Your task to perform on an android device: What is the news today? Image 0: 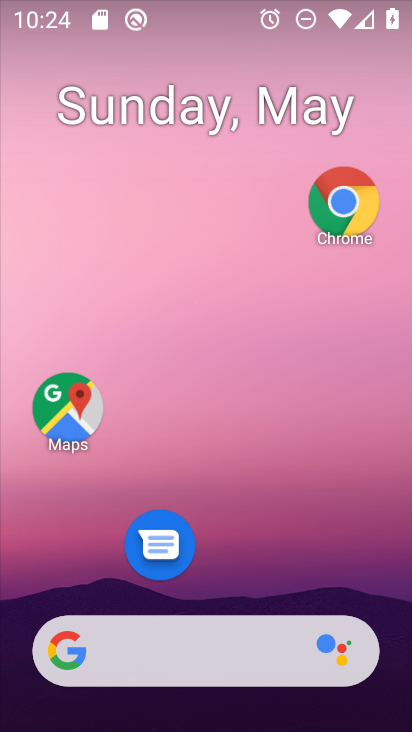
Step 0: drag from (266, 578) to (318, 0)
Your task to perform on an android device: What is the news today? Image 1: 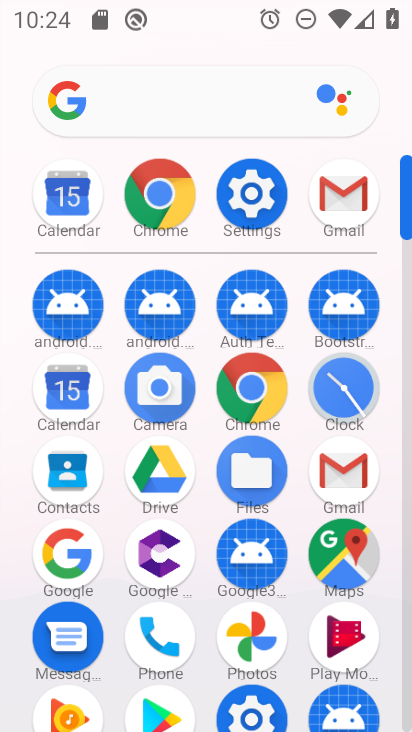
Step 1: click (146, 102)
Your task to perform on an android device: What is the news today? Image 2: 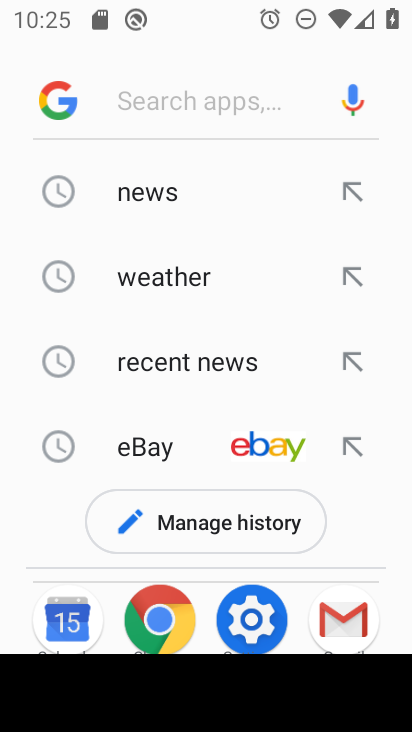
Step 2: type "what is the news today"
Your task to perform on an android device: What is the news today? Image 3: 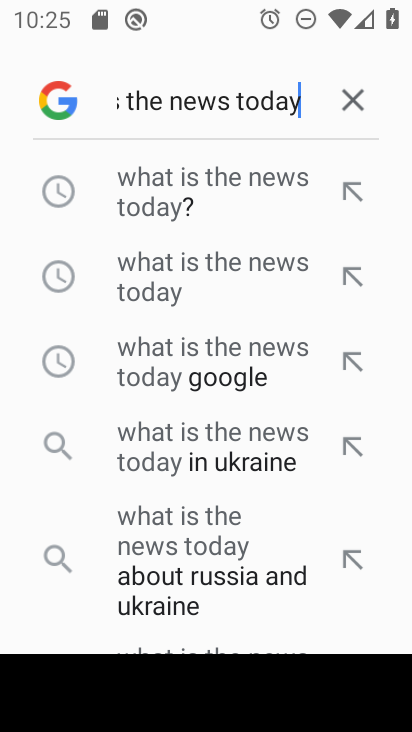
Step 3: click (212, 189)
Your task to perform on an android device: What is the news today? Image 4: 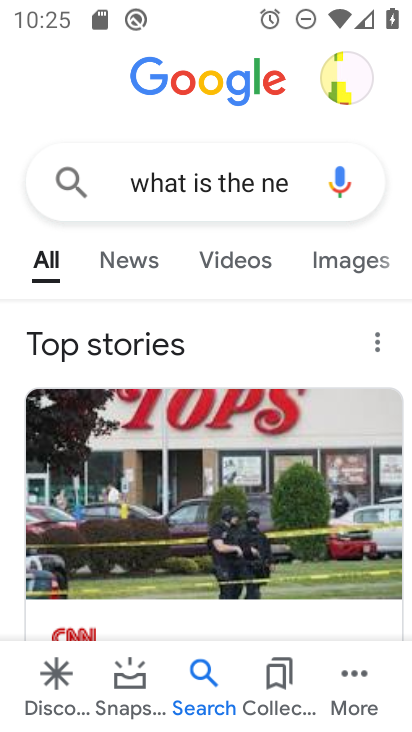
Step 4: click (110, 259)
Your task to perform on an android device: What is the news today? Image 5: 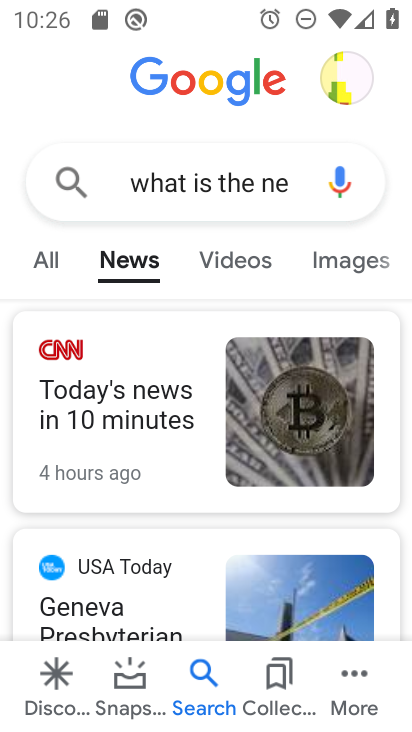
Step 5: task complete